Your task to perform on an android device: delete the emails in spam in the gmail app Image 0: 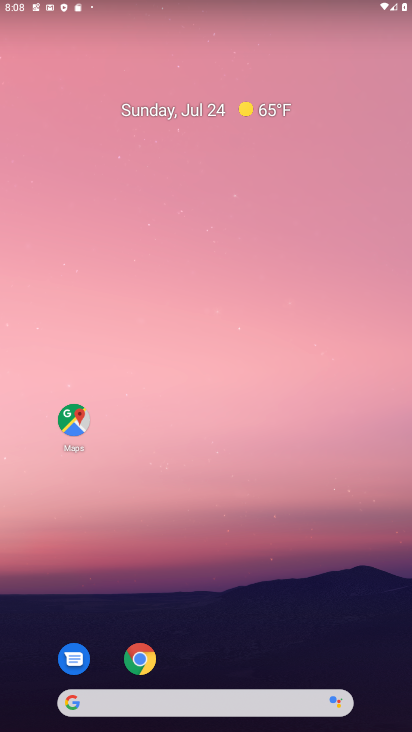
Step 0: drag from (248, 675) to (276, 4)
Your task to perform on an android device: delete the emails in spam in the gmail app Image 1: 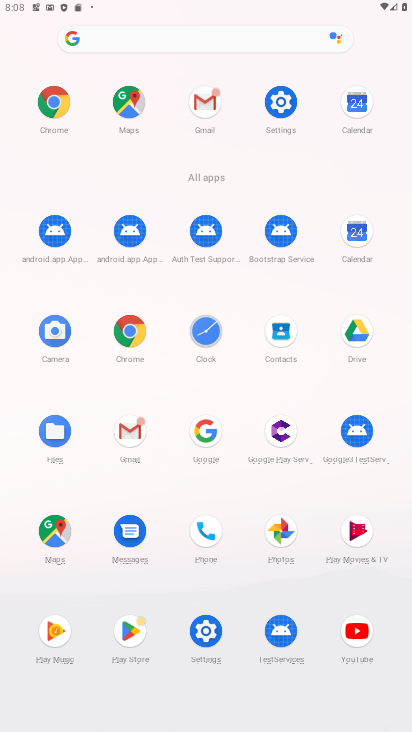
Step 1: click (206, 108)
Your task to perform on an android device: delete the emails in spam in the gmail app Image 2: 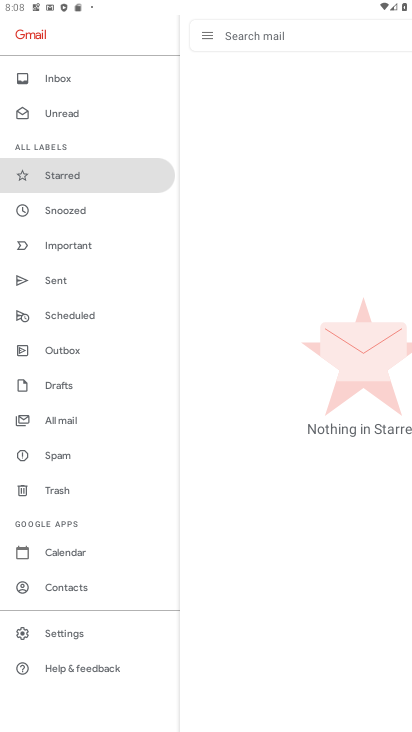
Step 2: click (58, 451)
Your task to perform on an android device: delete the emails in spam in the gmail app Image 3: 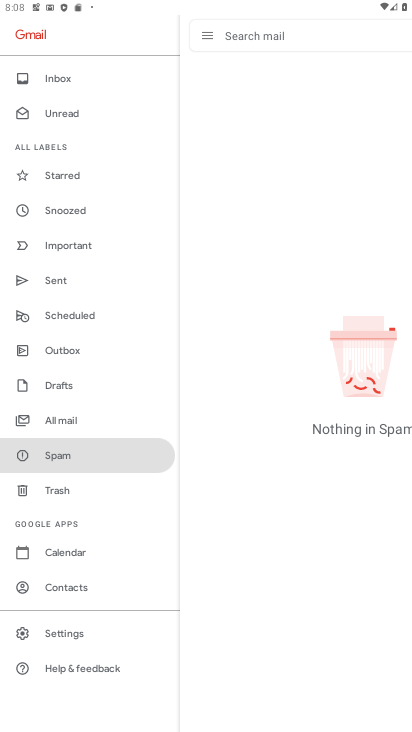
Step 3: task complete